Your task to perform on an android device: check storage Image 0: 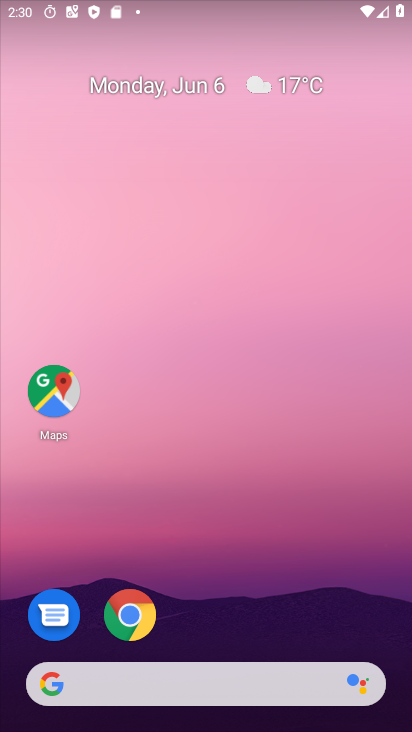
Step 0: drag from (206, 621) to (212, 14)
Your task to perform on an android device: check storage Image 1: 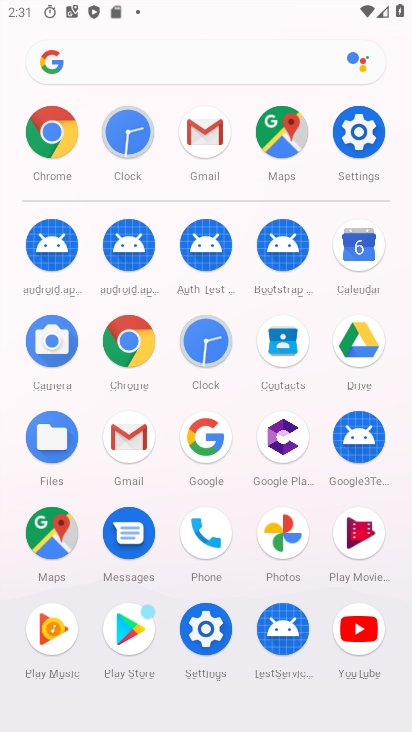
Step 1: click (199, 636)
Your task to perform on an android device: check storage Image 2: 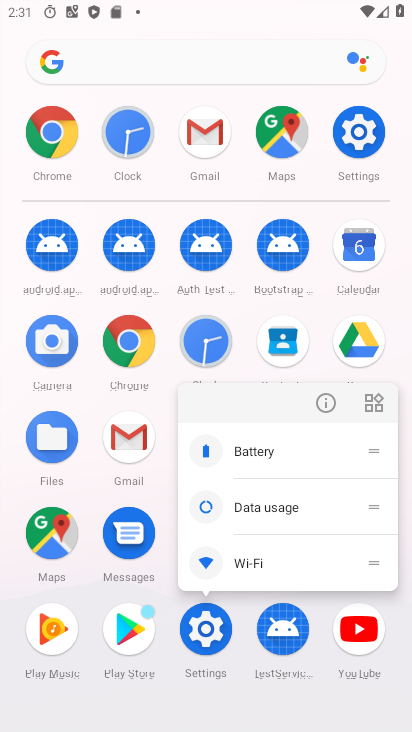
Step 2: click (328, 412)
Your task to perform on an android device: check storage Image 3: 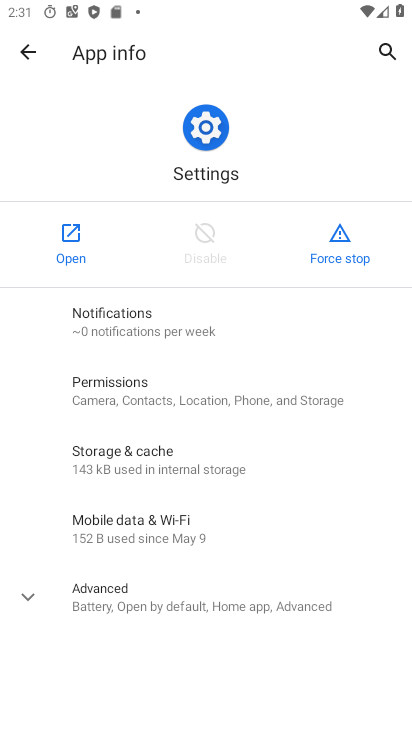
Step 3: click (53, 235)
Your task to perform on an android device: check storage Image 4: 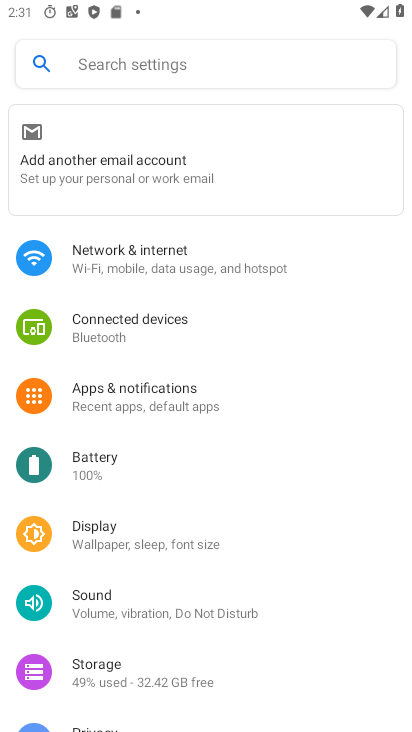
Step 4: drag from (208, 588) to (246, 97)
Your task to perform on an android device: check storage Image 5: 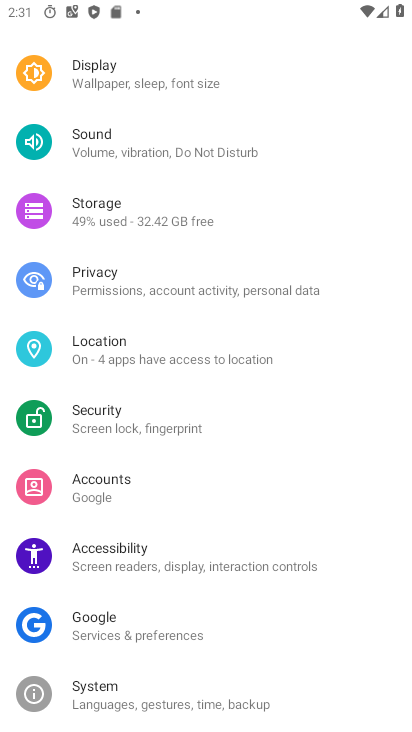
Step 5: click (124, 217)
Your task to perform on an android device: check storage Image 6: 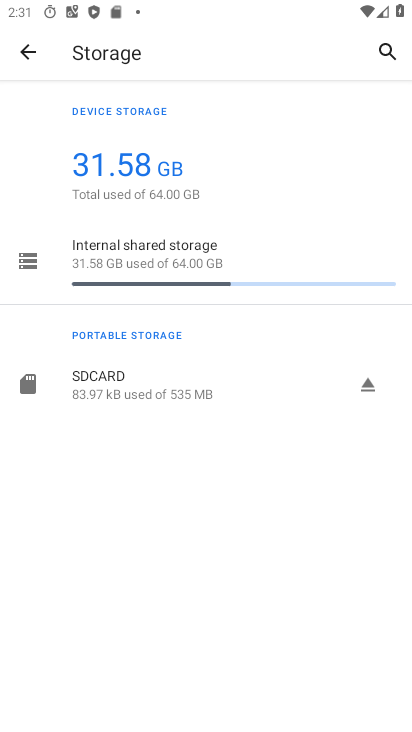
Step 6: task complete